Your task to perform on an android device: add a contact in the contacts app Image 0: 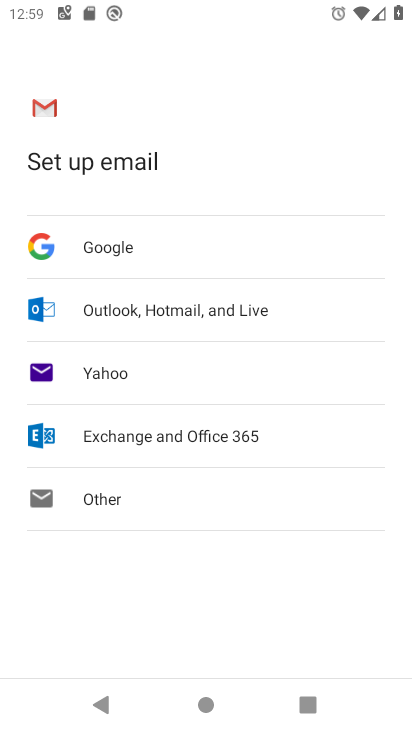
Step 0: press home button
Your task to perform on an android device: add a contact in the contacts app Image 1: 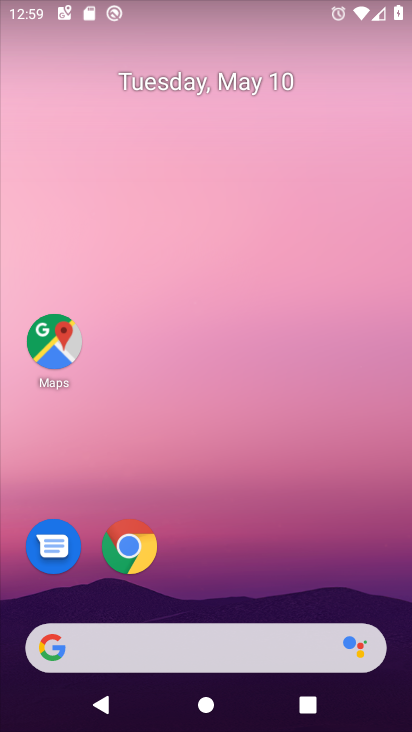
Step 1: drag from (274, 560) to (240, 159)
Your task to perform on an android device: add a contact in the contacts app Image 2: 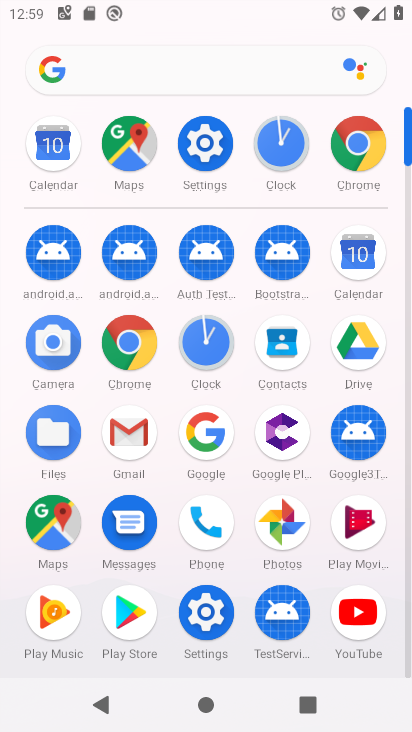
Step 2: click (287, 338)
Your task to perform on an android device: add a contact in the contacts app Image 3: 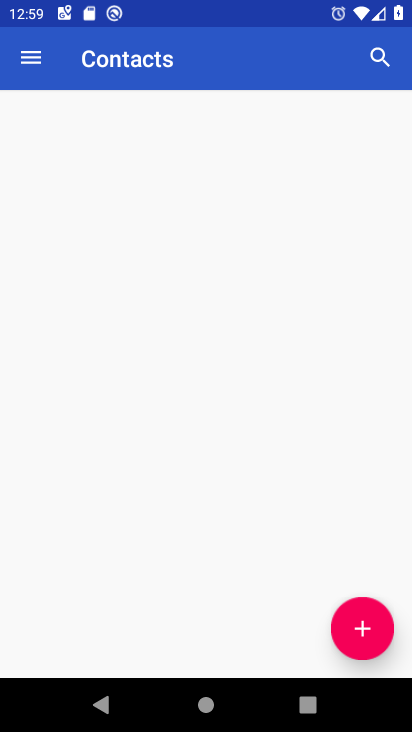
Step 3: click (371, 633)
Your task to perform on an android device: add a contact in the contacts app Image 4: 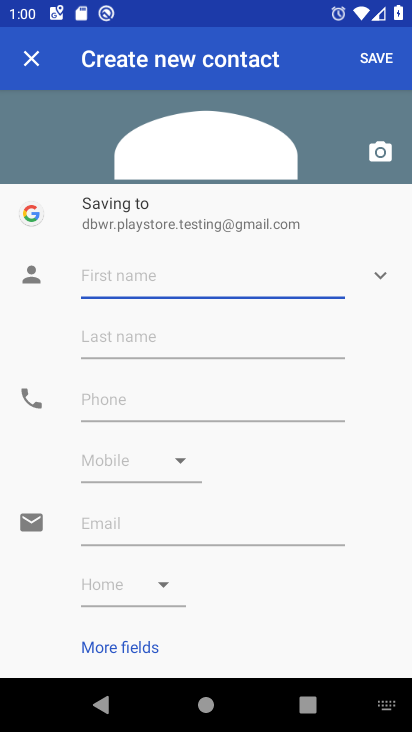
Step 4: click (210, 286)
Your task to perform on an android device: add a contact in the contacts app Image 5: 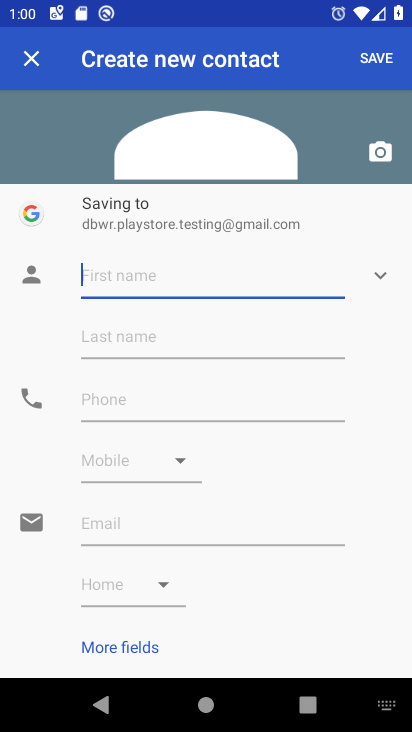
Step 5: type "gcggjl"
Your task to perform on an android device: add a contact in the contacts app Image 6: 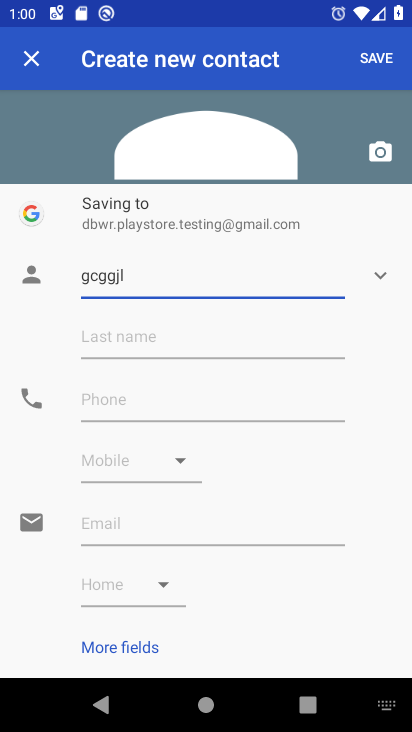
Step 6: click (269, 405)
Your task to perform on an android device: add a contact in the contacts app Image 7: 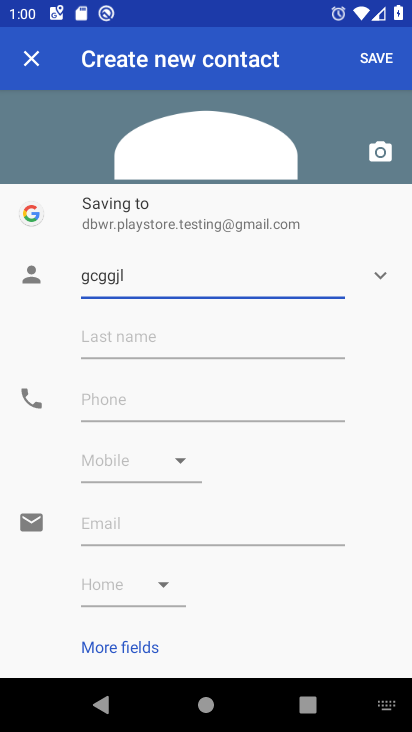
Step 7: click (269, 405)
Your task to perform on an android device: add a contact in the contacts app Image 8: 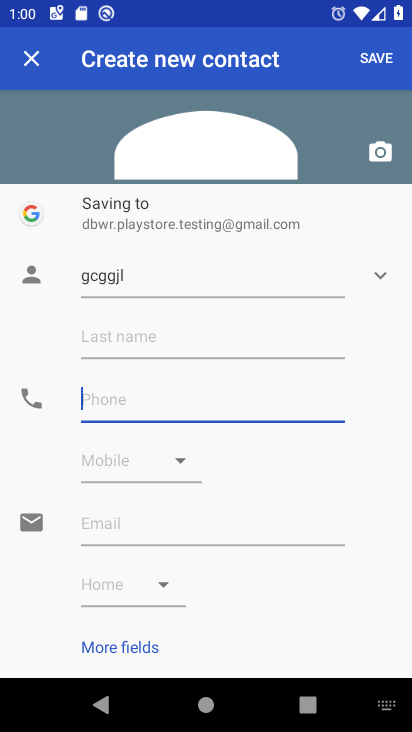
Step 8: type "46"
Your task to perform on an android device: add a contact in the contacts app Image 9: 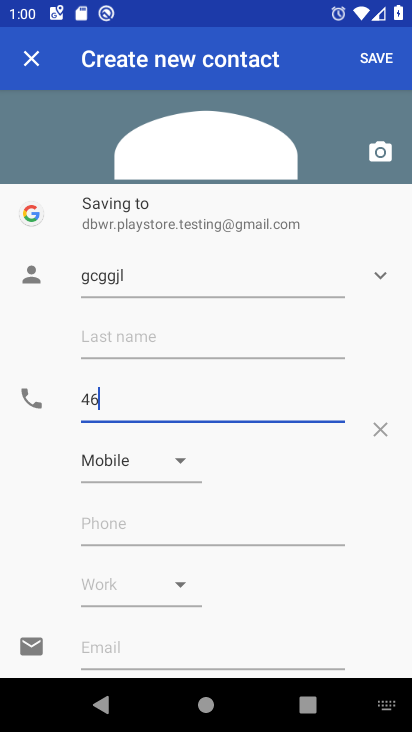
Step 9: click (397, 56)
Your task to perform on an android device: add a contact in the contacts app Image 10: 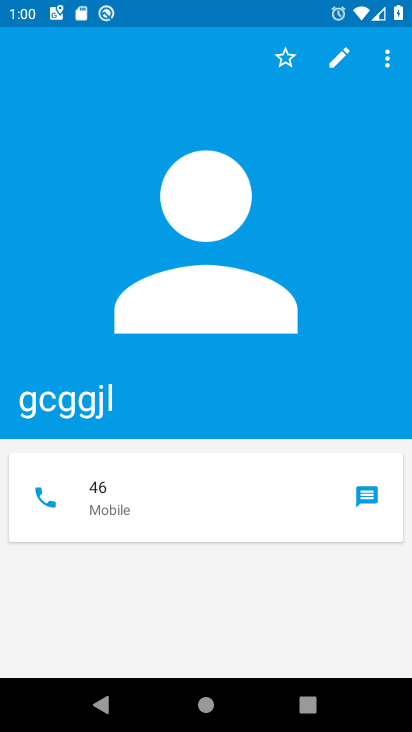
Step 10: task complete